Your task to perform on an android device: Show me productivity apps on the Play Store Image 0: 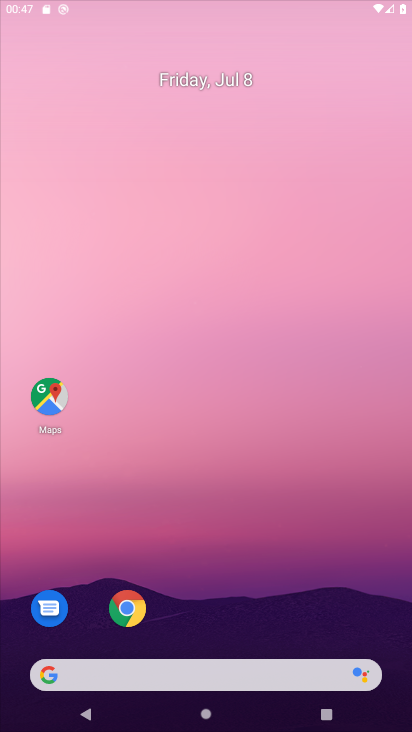
Step 0: drag from (228, 612) to (240, 163)
Your task to perform on an android device: Show me productivity apps on the Play Store Image 1: 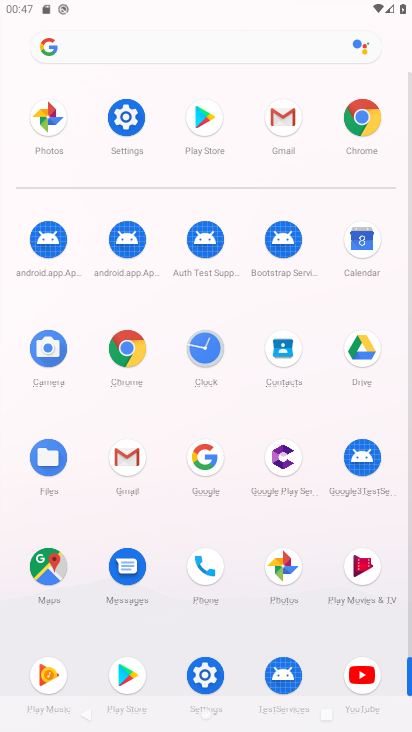
Step 1: click (121, 684)
Your task to perform on an android device: Show me productivity apps on the Play Store Image 2: 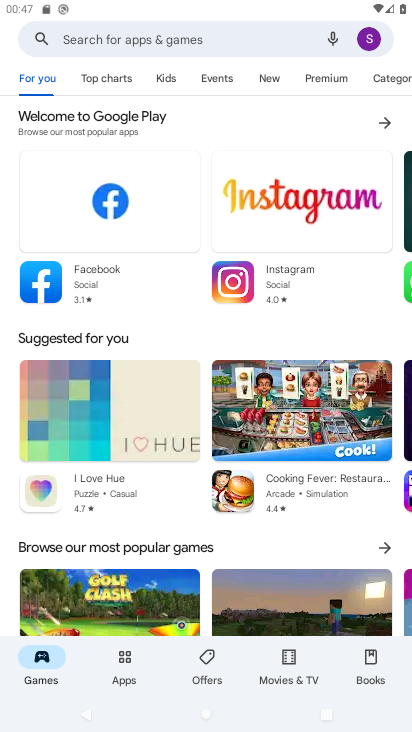
Step 2: click (117, 665)
Your task to perform on an android device: Show me productivity apps on the Play Store Image 3: 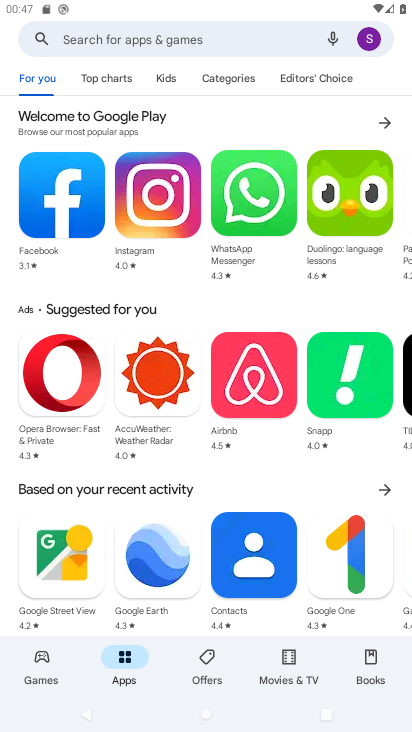
Step 3: task complete